Your task to perform on an android device: delete the emails in spam in the gmail app Image 0: 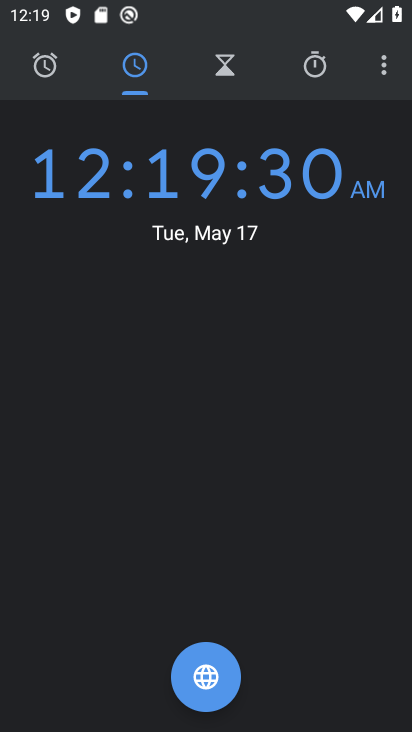
Step 0: press home button
Your task to perform on an android device: delete the emails in spam in the gmail app Image 1: 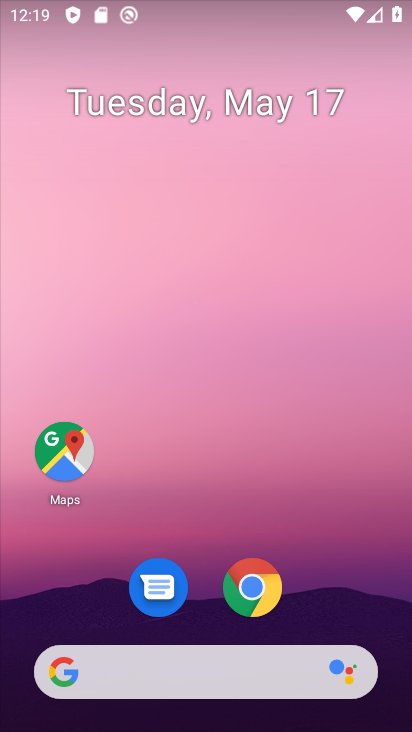
Step 1: drag from (176, 660) to (120, 23)
Your task to perform on an android device: delete the emails in spam in the gmail app Image 2: 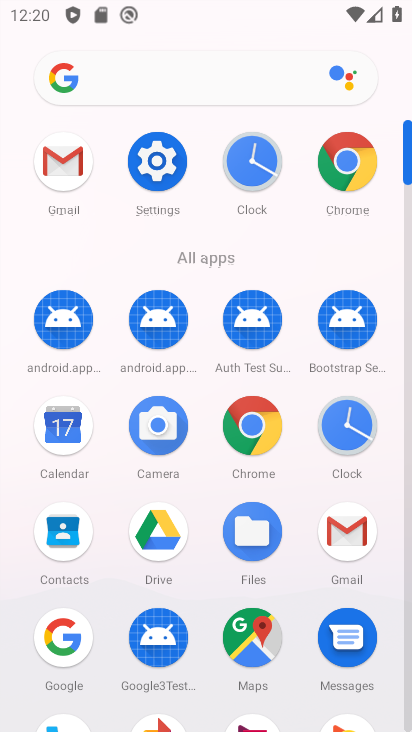
Step 2: click (350, 543)
Your task to perform on an android device: delete the emails in spam in the gmail app Image 3: 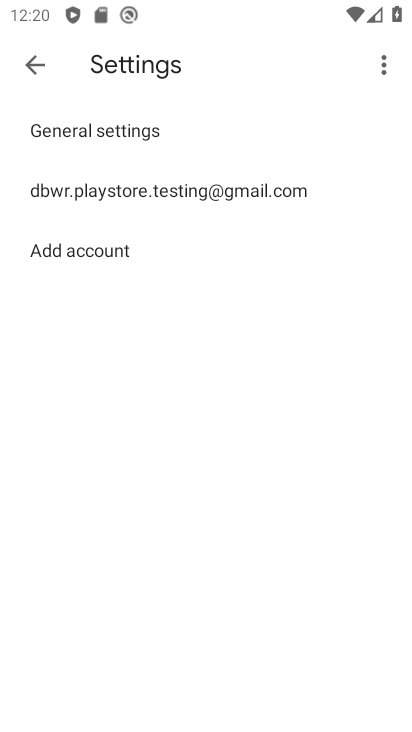
Step 3: click (33, 63)
Your task to perform on an android device: delete the emails in spam in the gmail app Image 4: 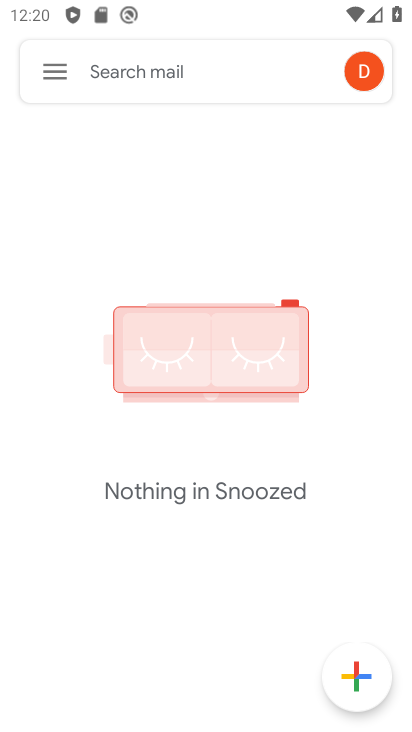
Step 4: click (33, 63)
Your task to perform on an android device: delete the emails in spam in the gmail app Image 5: 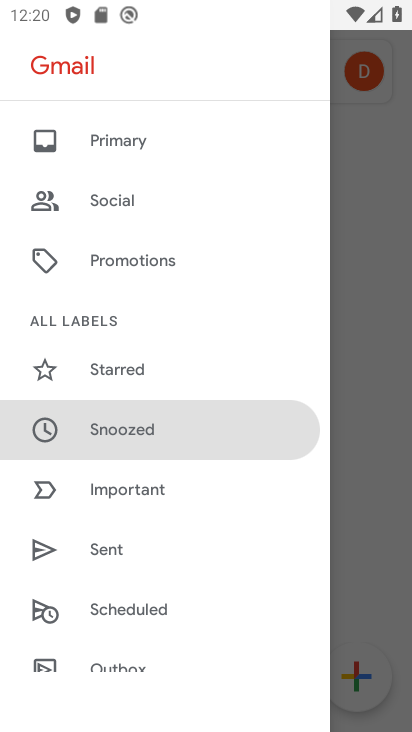
Step 5: drag from (137, 641) to (81, 249)
Your task to perform on an android device: delete the emails in spam in the gmail app Image 6: 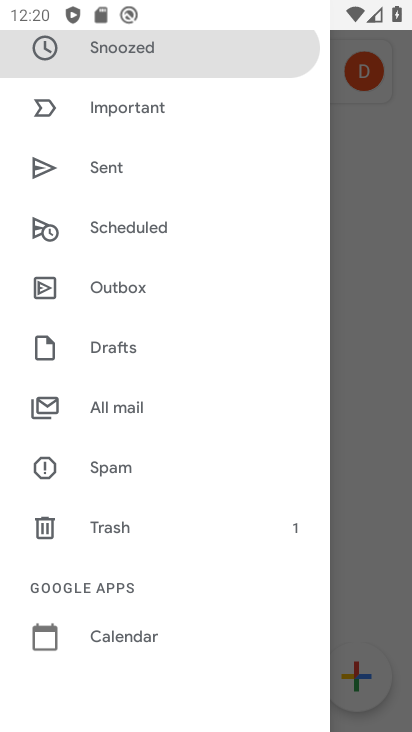
Step 6: click (130, 469)
Your task to perform on an android device: delete the emails in spam in the gmail app Image 7: 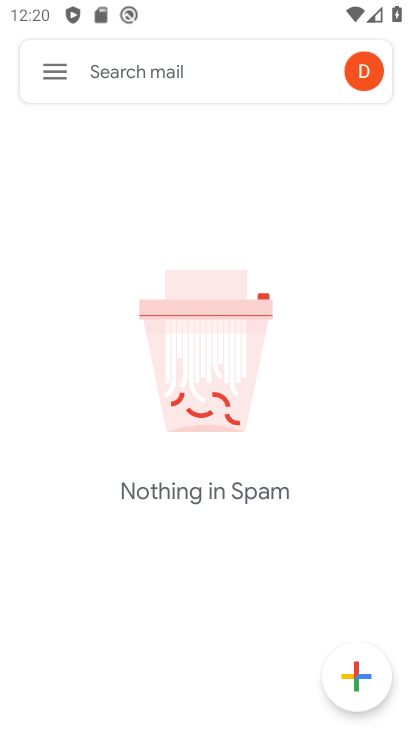
Step 7: task complete